Your task to perform on an android device: turn notification dots on Image 0: 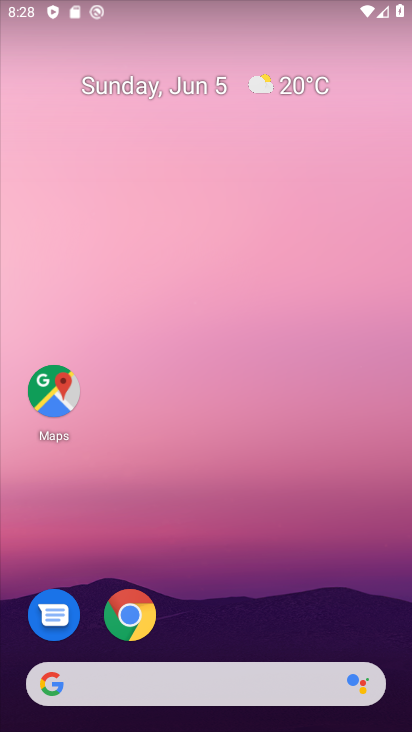
Step 0: drag from (136, 721) to (205, 79)
Your task to perform on an android device: turn notification dots on Image 1: 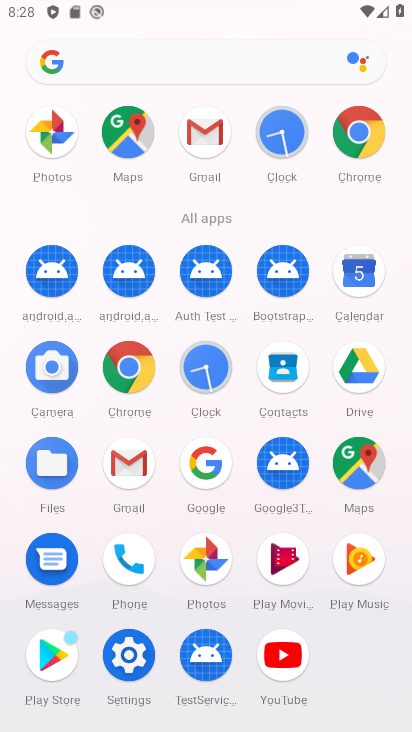
Step 1: click (130, 648)
Your task to perform on an android device: turn notification dots on Image 2: 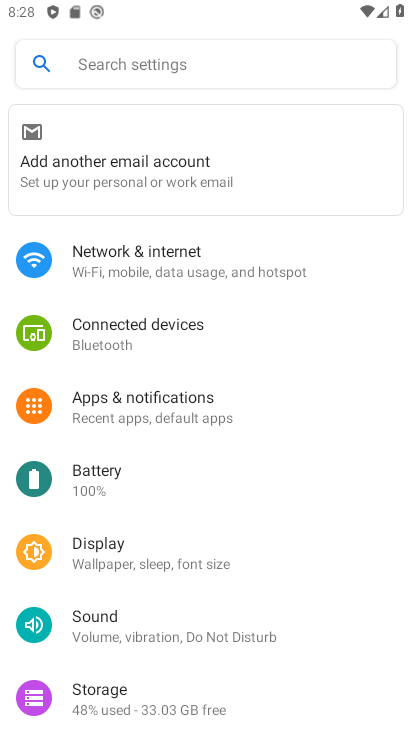
Step 2: click (157, 417)
Your task to perform on an android device: turn notification dots on Image 3: 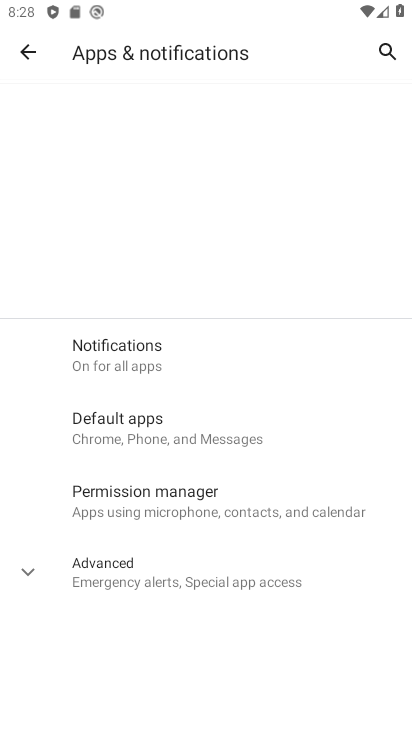
Step 3: click (162, 374)
Your task to perform on an android device: turn notification dots on Image 4: 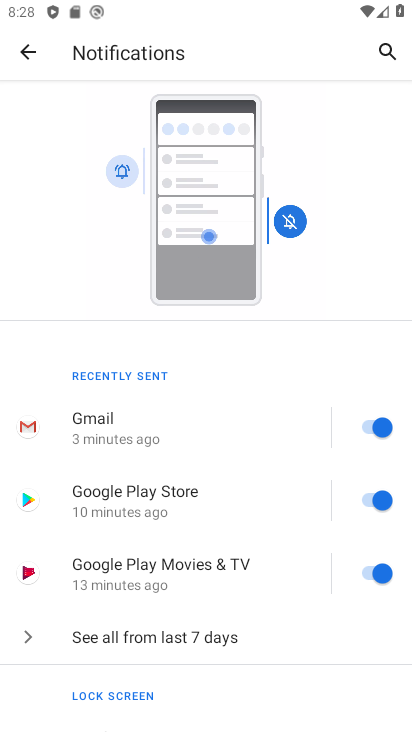
Step 4: drag from (185, 688) to (305, 114)
Your task to perform on an android device: turn notification dots on Image 5: 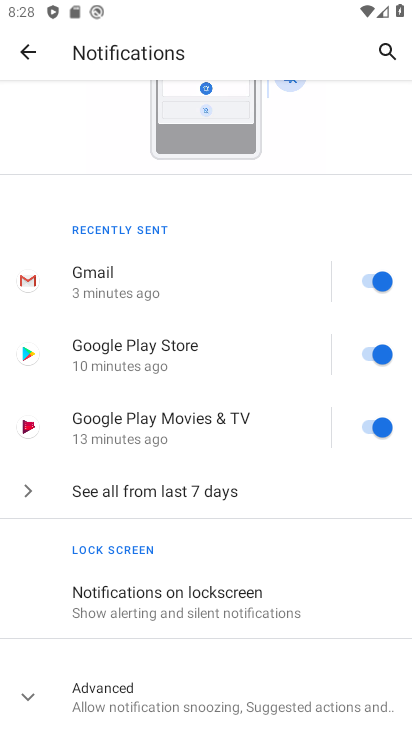
Step 5: click (167, 688)
Your task to perform on an android device: turn notification dots on Image 6: 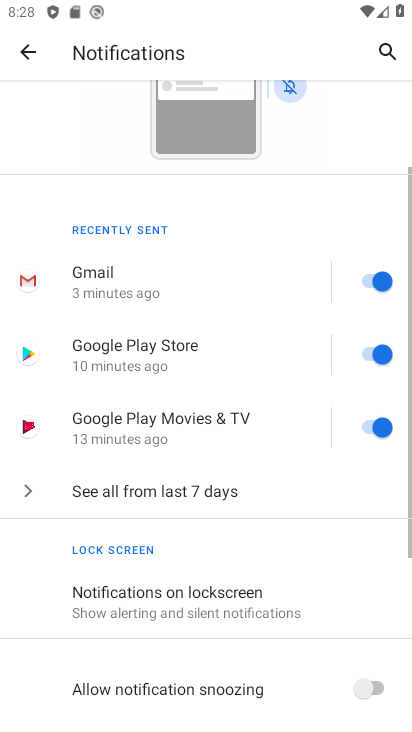
Step 6: task complete